Your task to perform on an android device: Go to network settings Image 0: 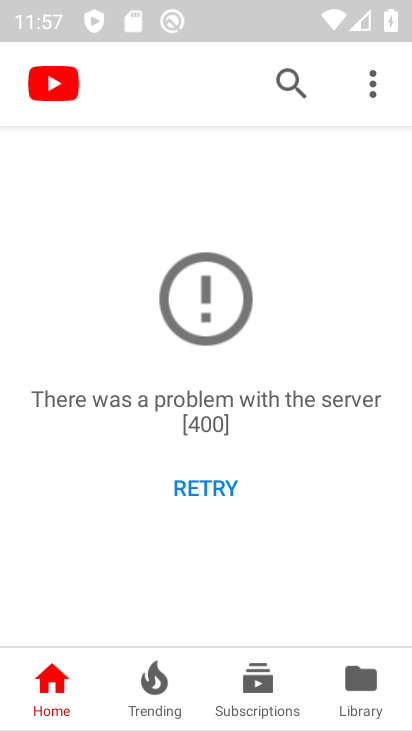
Step 0: press home button
Your task to perform on an android device: Go to network settings Image 1: 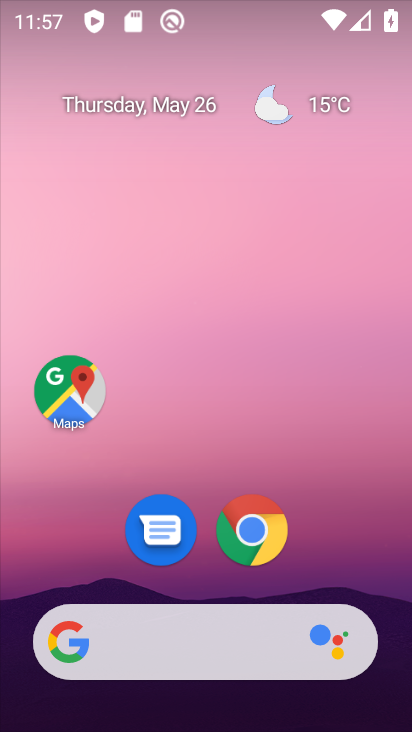
Step 1: drag from (92, 571) to (256, 55)
Your task to perform on an android device: Go to network settings Image 2: 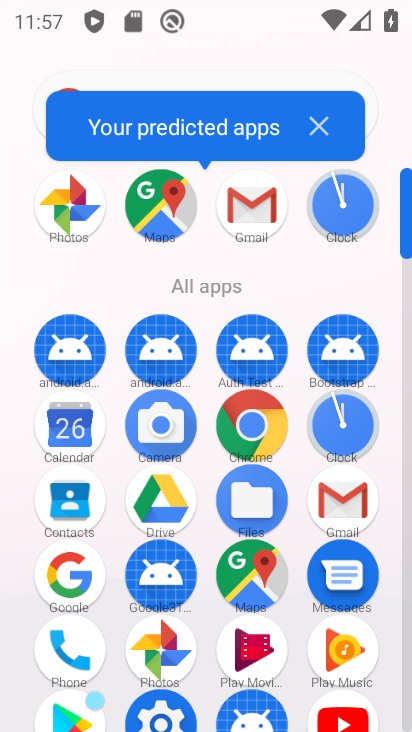
Step 2: drag from (164, 604) to (246, 282)
Your task to perform on an android device: Go to network settings Image 3: 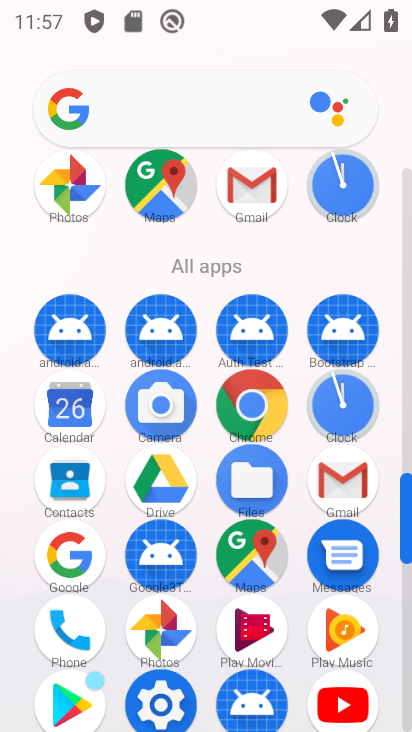
Step 3: click (146, 708)
Your task to perform on an android device: Go to network settings Image 4: 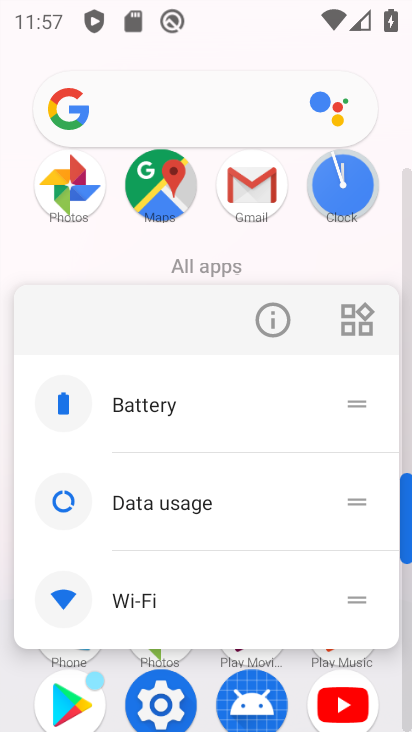
Step 4: click (165, 687)
Your task to perform on an android device: Go to network settings Image 5: 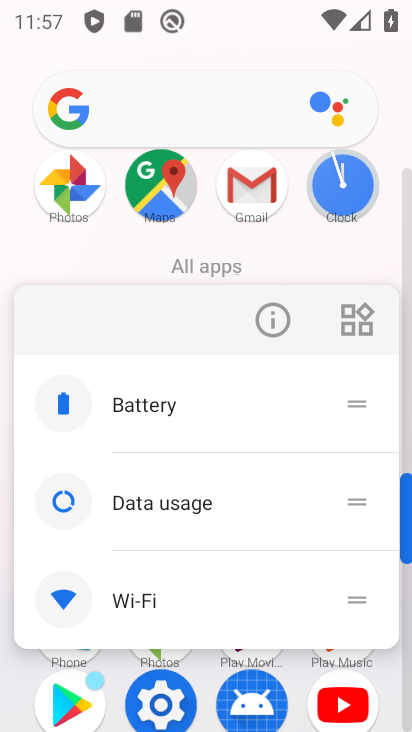
Step 5: click (171, 705)
Your task to perform on an android device: Go to network settings Image 6: 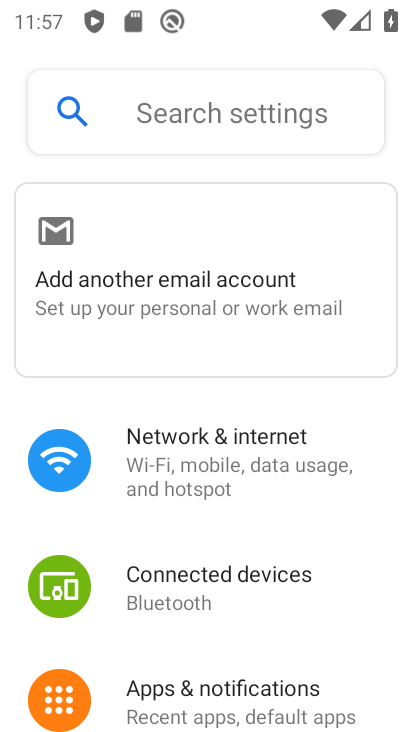
Step 6: click (247, 485)
Your task to perform on an android device: Go to network settings Image 7: 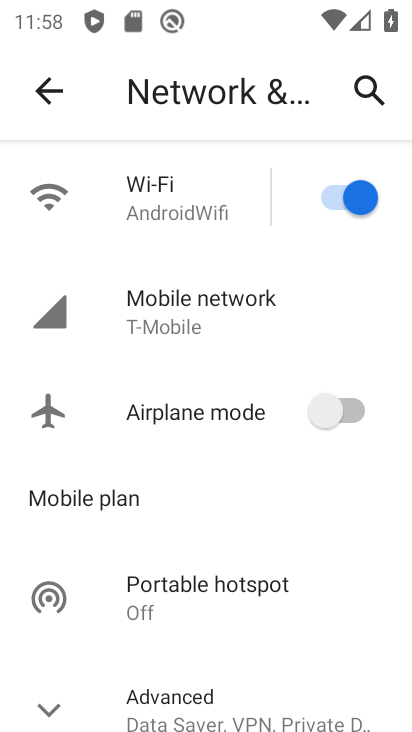
Step 7: click (209, 315)
Your task to perform on an android device: Go to network settings Image 8: 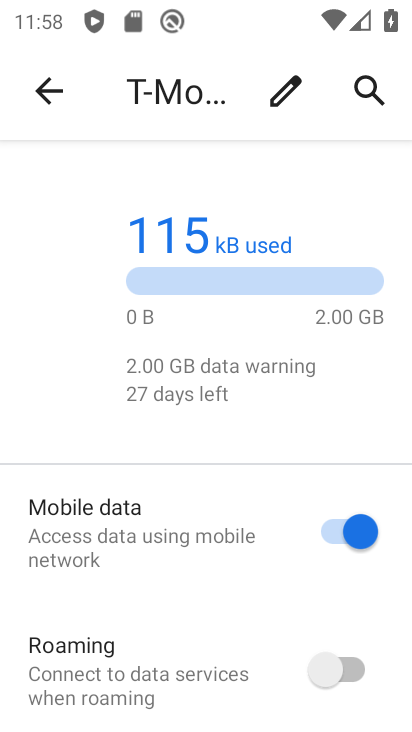
Step 8: task complete